Your task to perform on an android device: open app "Pinterest" Image 0: 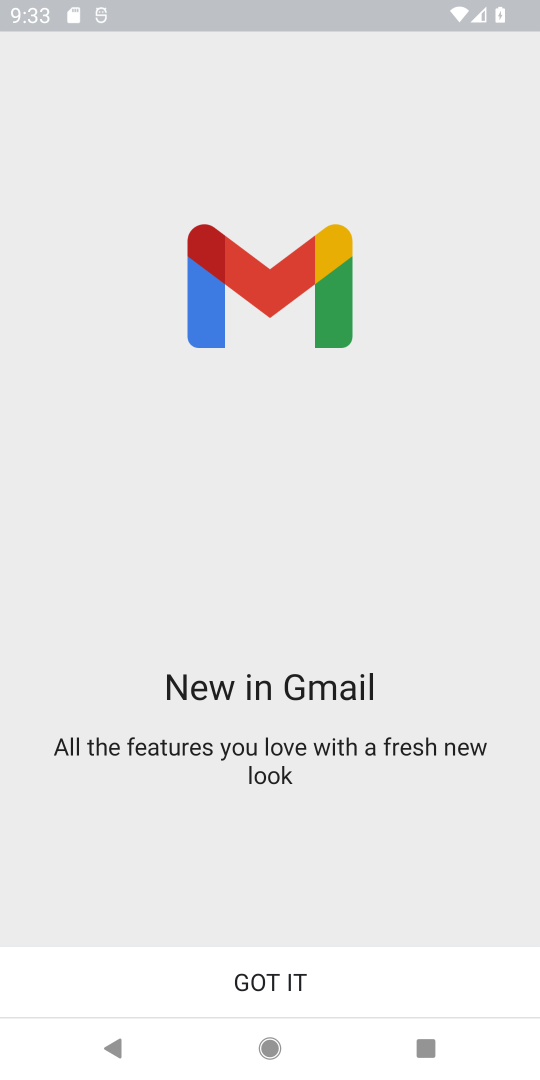
Step 0: press home button
Your task to perform on an android device: open app "Pinterest" Image 1: 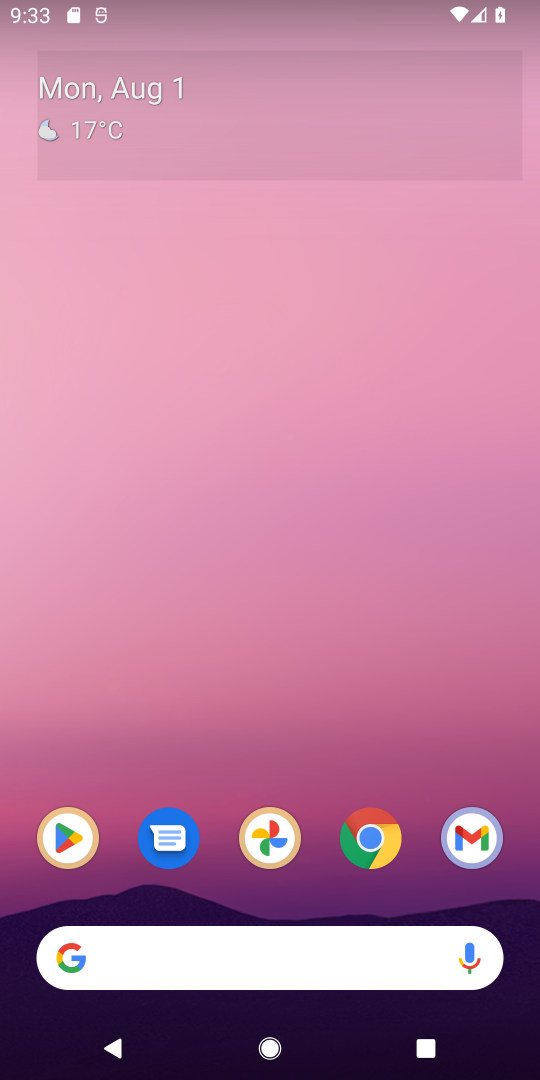
Step 1: click (85, 829)
Your task to perform on an android device: open app "Pinterest" Image 2: 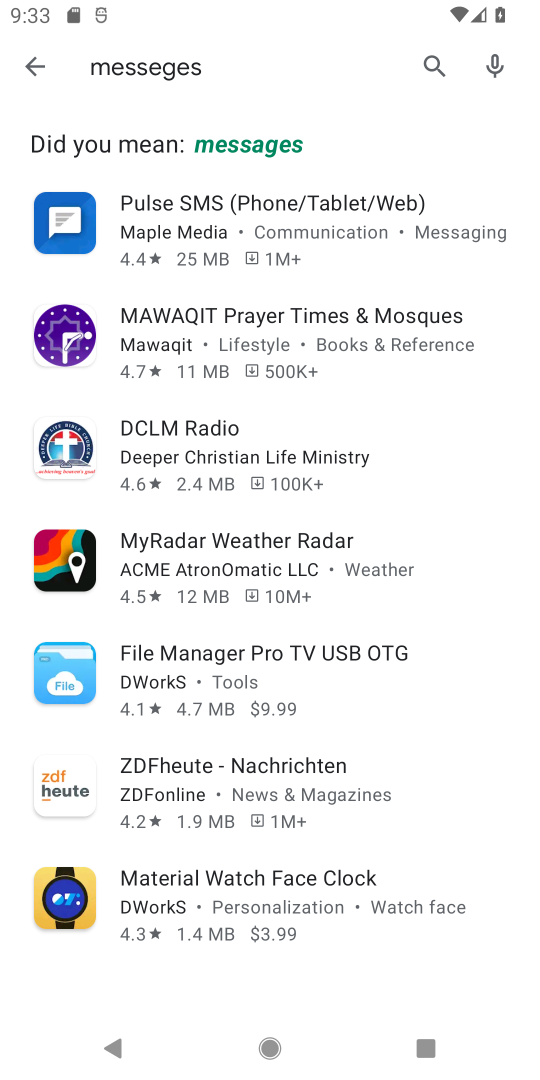
Step 2: click (441, 52)
Your task to perform on an android device: open app "Pinterest" Image 3: 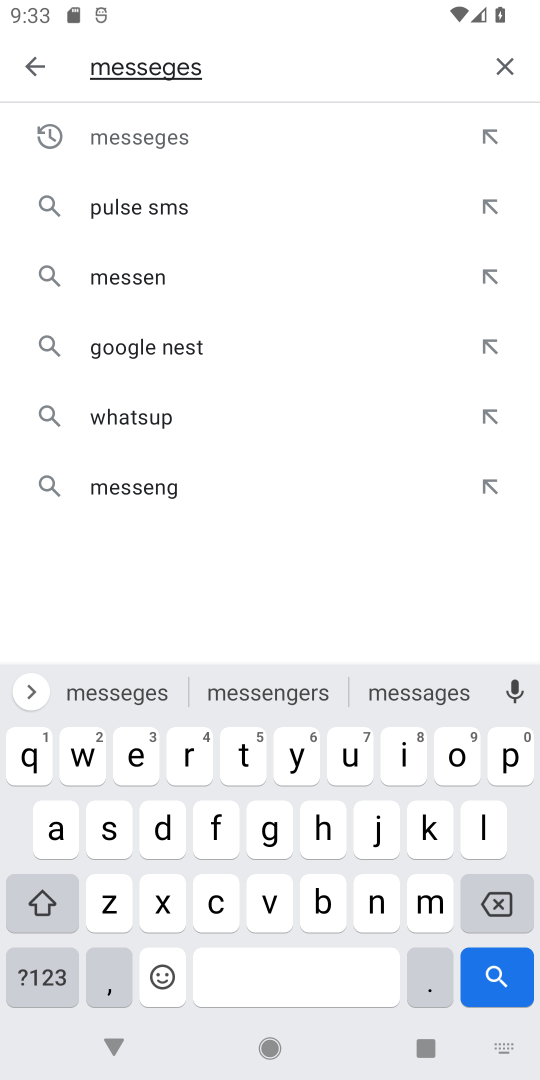
Step 3: click (495, 70)
Your task to perform on an android device: open app "Pinterest" Image 4: 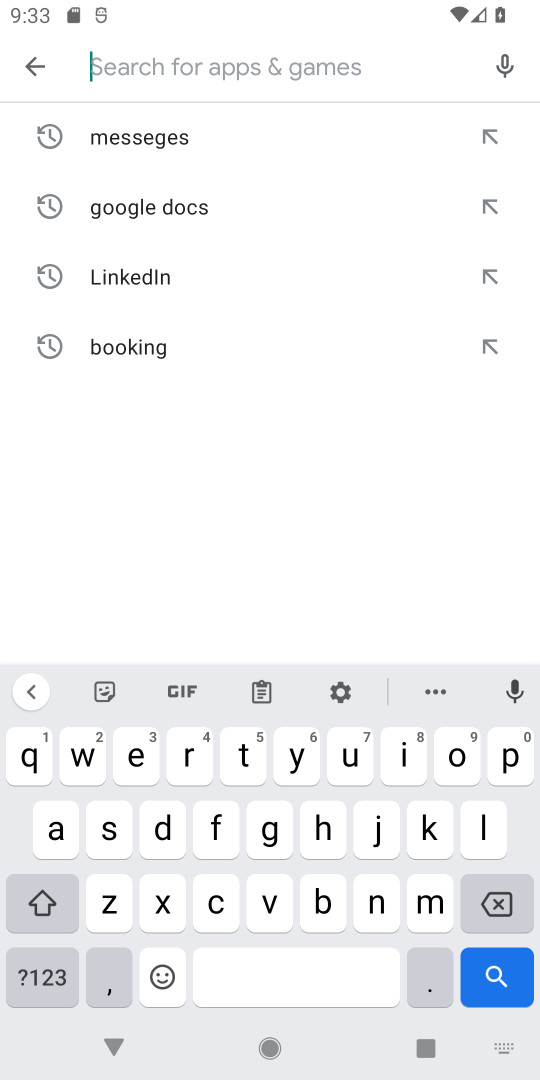
Step 4: type "pinterest"
Your task to perform on an android device: open app "Pinterest" Image 5: 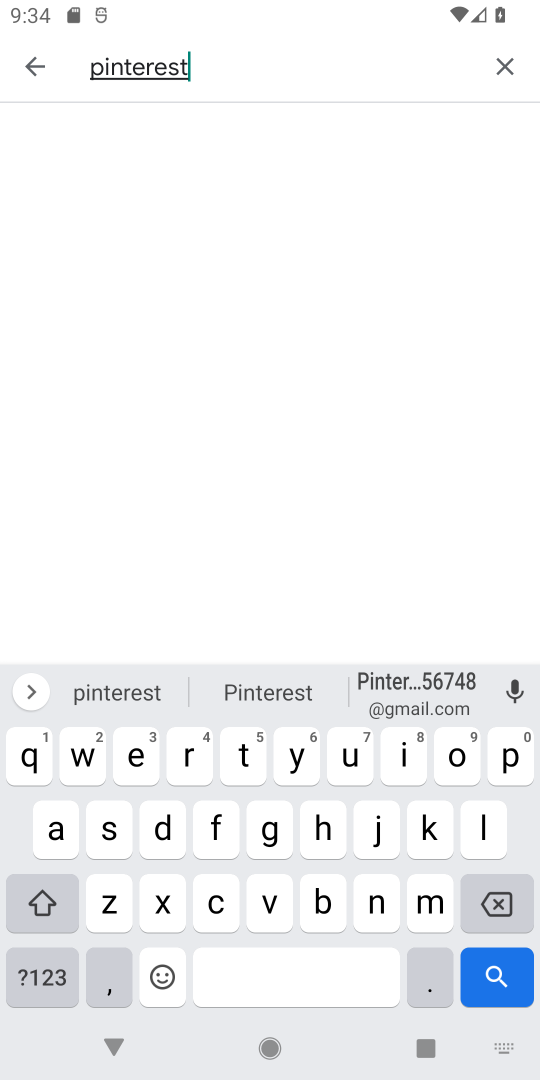
Step 5: click (271, 701)
Your task to perform on an android device: open app "Pinterest" Image 6: 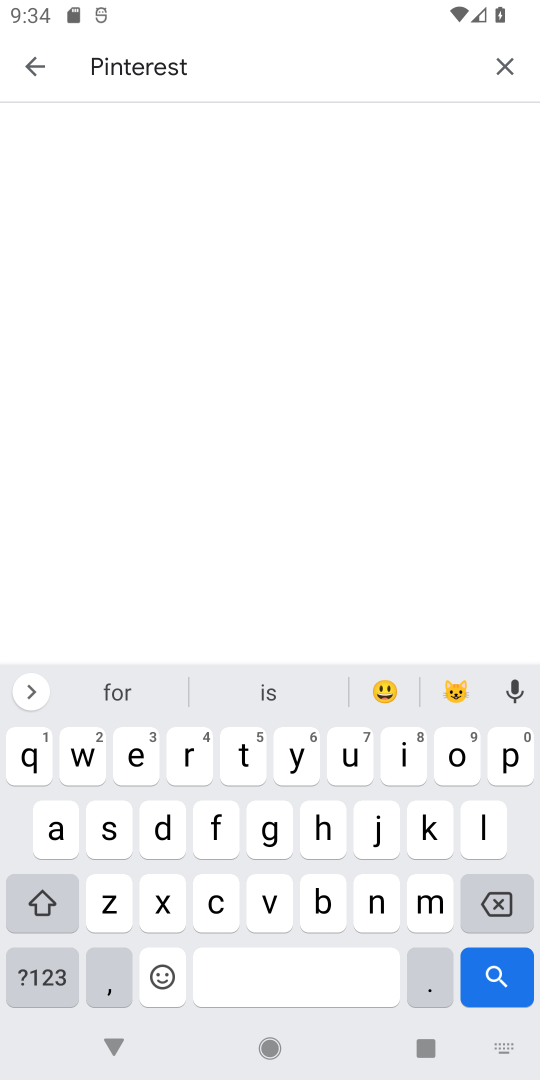
Step 6: click (493, 970)
Your task to perform on an android device: open app "Pinterest" Image 7: 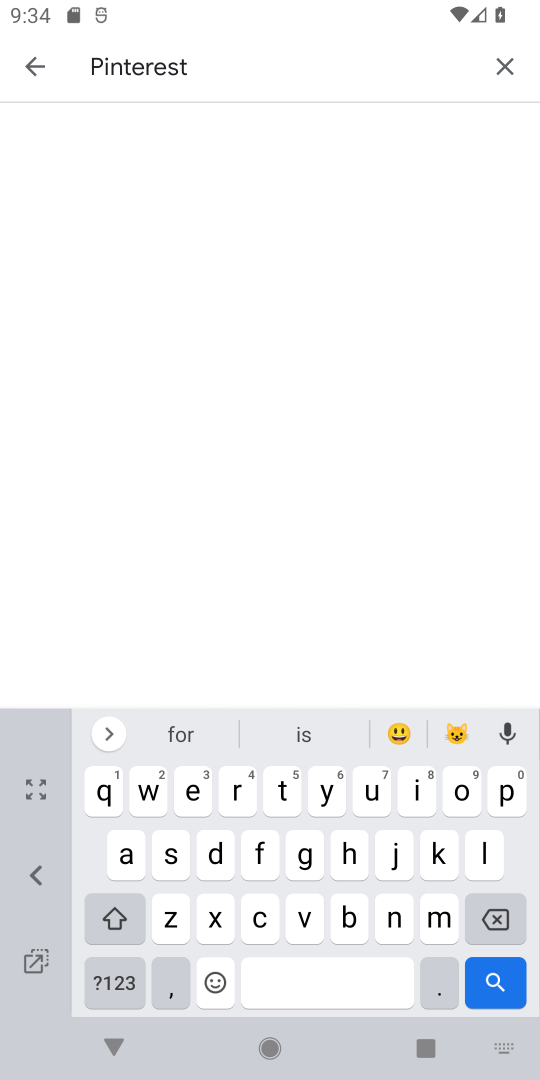
Step 7: click (479, 979)
Your task to perform on an android device: open app "Pinterest" Image 8: 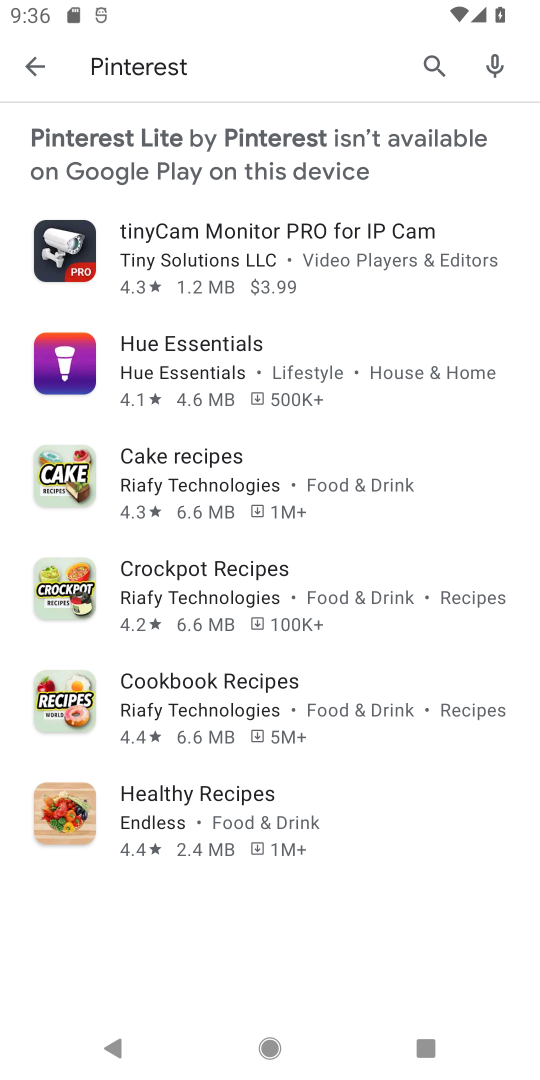
Step 8: task complete